Your task to perform on an android device: Open accessibility settings Image 0: 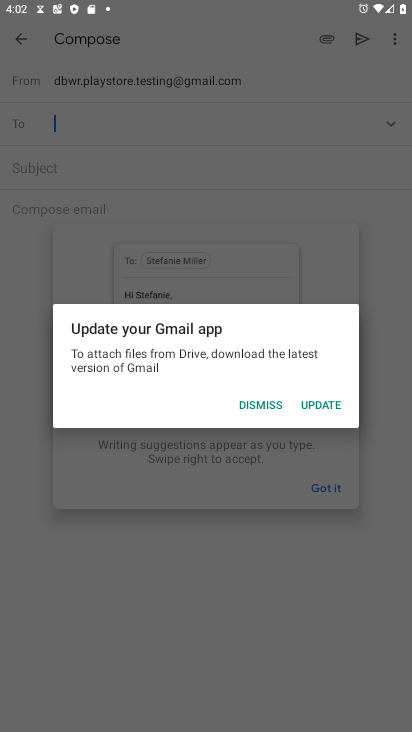
Step 0: press home button
Your task to perform on an android device: Open accessibility settings Image 1: 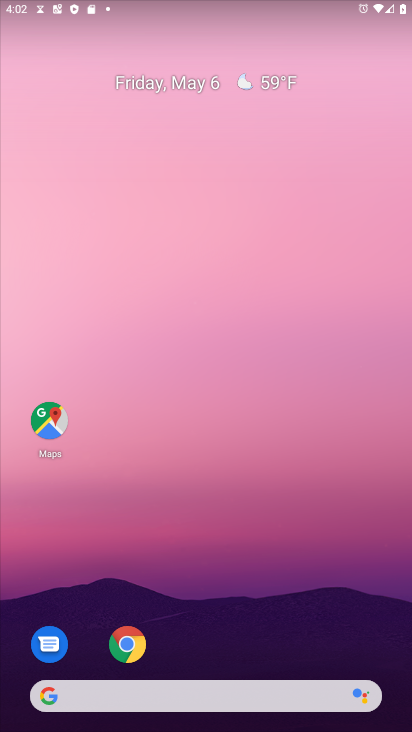
Step 1: drag from (208, 625) to (166, 78)
Your task to perform on an android device: Open accessibility settings Image 2: 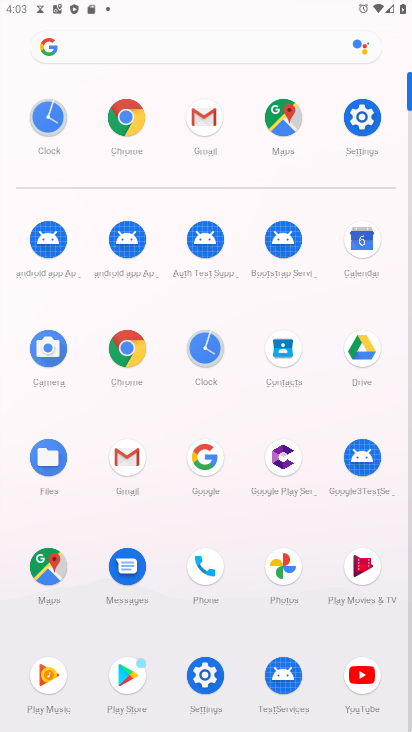
Step 2: click (362, 118)
Your task to perform on an android device: Open accessibility settings Image 3: 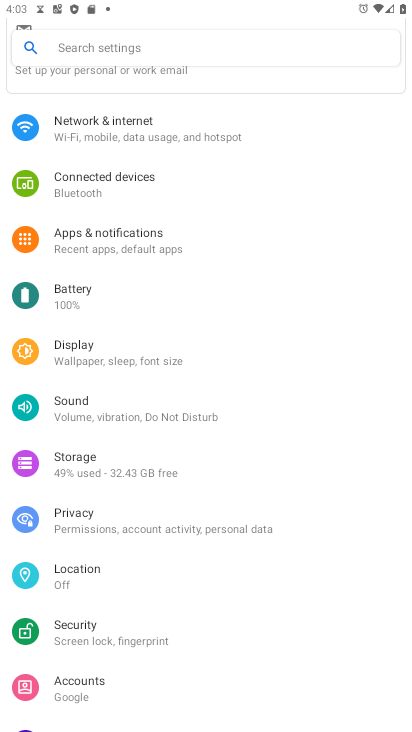
Step 3: drag from (121, 561) to (128, 437)
Your task to perform on an android device: Open accessibility settings Image 4: 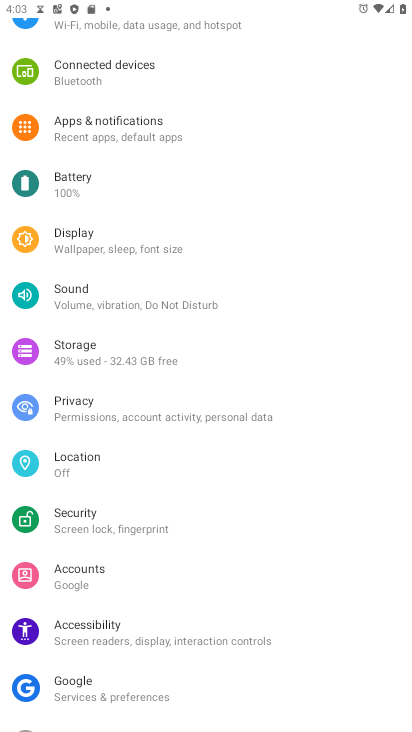
Step 4: click (98, 632)
Your task to perform on an android device: Open accessibility settings Image 5: 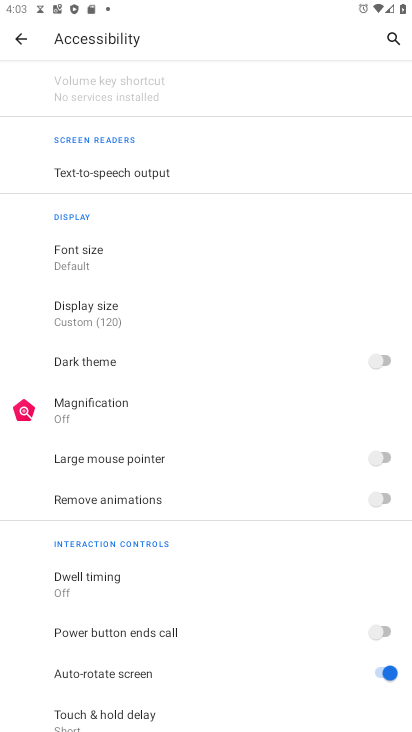
Step 5: task complete